Your task to perform on an android device: Open my contact list Image 0: 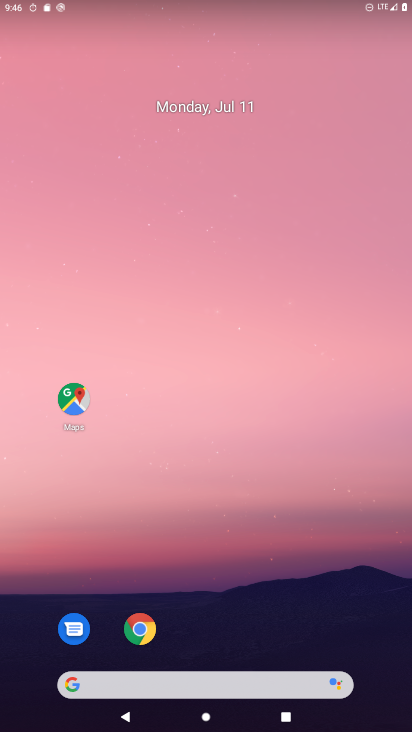
Step 0: drag from (203, 634) to (352, 34)
Your task to perform on an android device: Open my contact list Image 1: 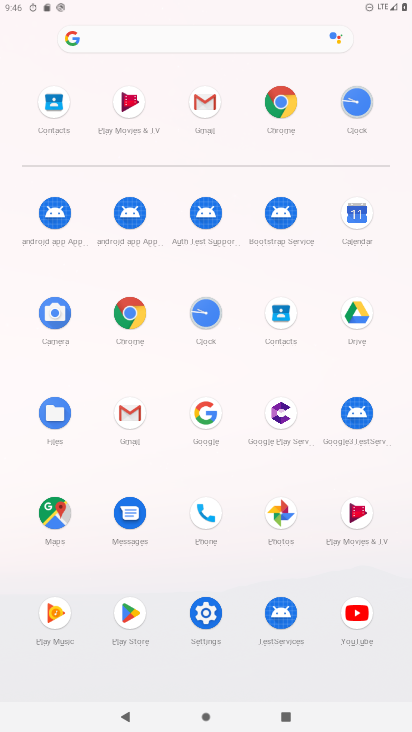
Step 1: click (279, 309)
Your task to perform on an android device: Open my contact list Image 2: 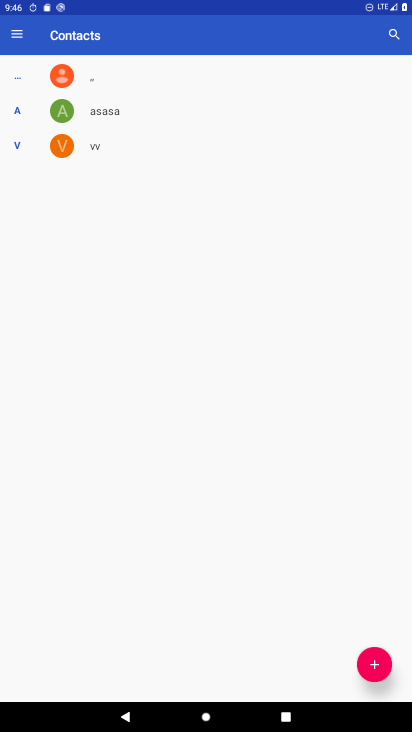
Step 2: task complete